Your task to perform on an android device: Clear the shopping cart on costco.com. Add "amazon basics triple a" to the cart on costco.com, then select checkout. Image 0: 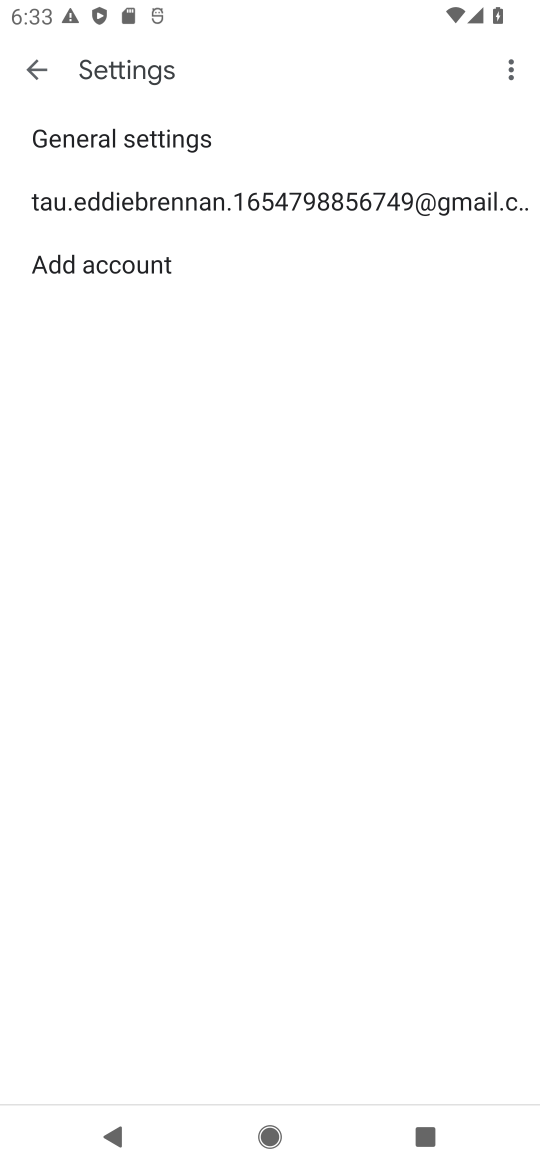
Step 0: press home button
Your task to perform on an android device: Clear the shopping cart on costco.com. Add "amazon basics triple a" to the cart on costco.com, then select checkout. Image 1: 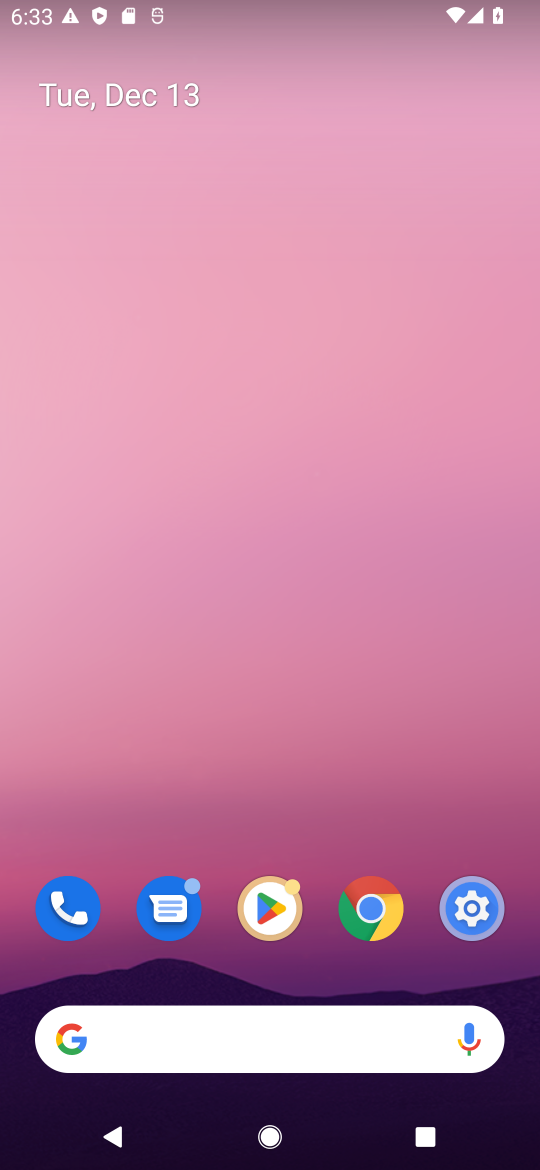
Step 1: click (104, 1032)
Your task to perform on an android device: Clear the shopping cart on costco.com. Add "amazon basics triple a" to the cart on costco.com, then select checkout. Image 2: 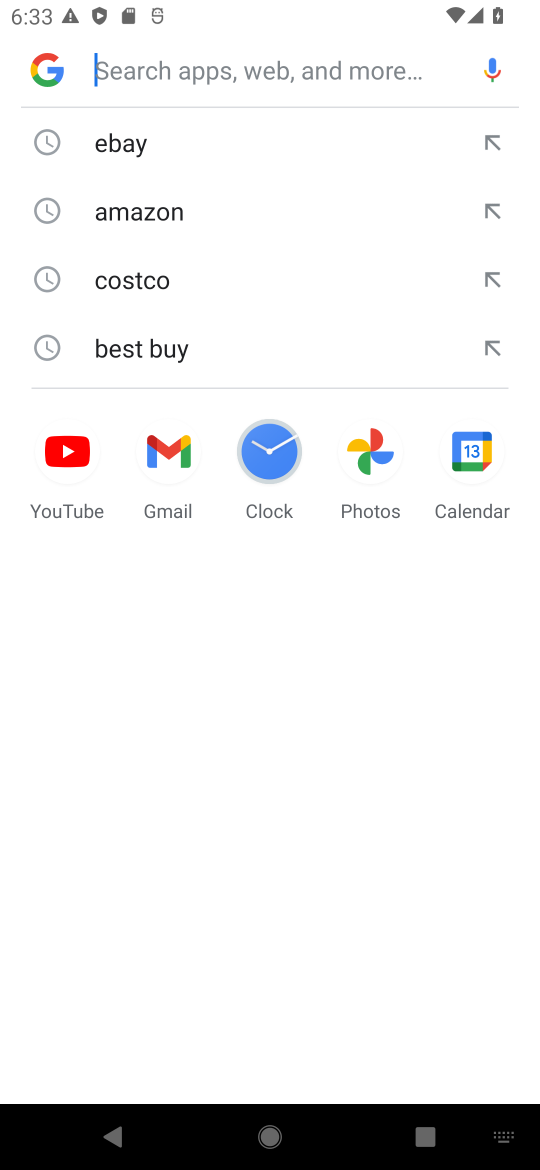
Step 2: type "costco.com"
Your task to perform on an android device: Clear the shopping cart on costco.com. Add "amazon basics triple a" to the cart on costco.com, then select checkout. Image 3: 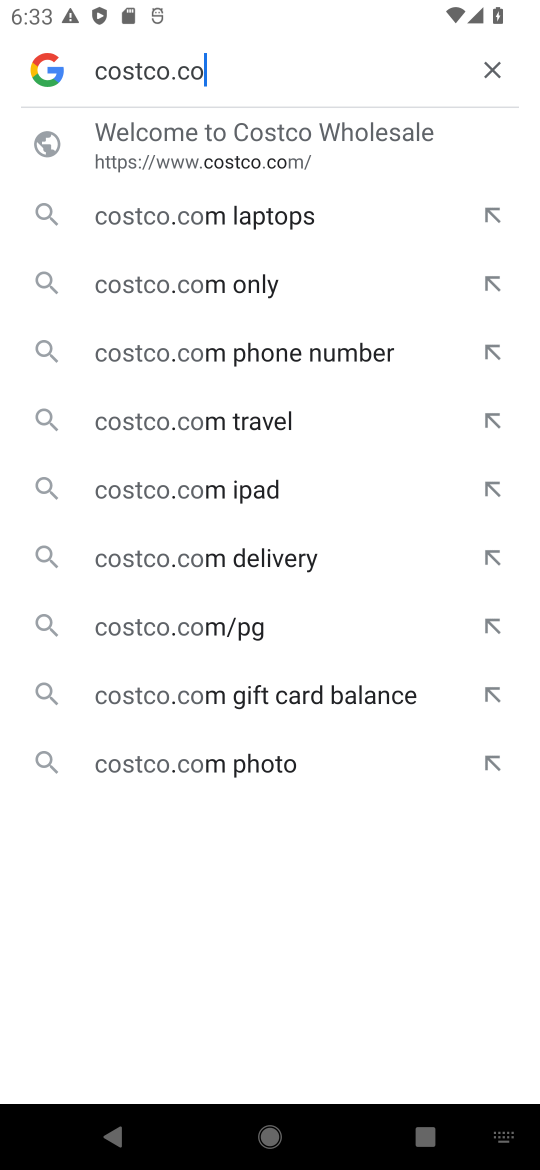
Step 3: press enter
Your task to perform on an android device: Clear the shopping cart on costco.com. Add "amazon basics triple a" to the cart on costco.com, then select checkout. Image 4: 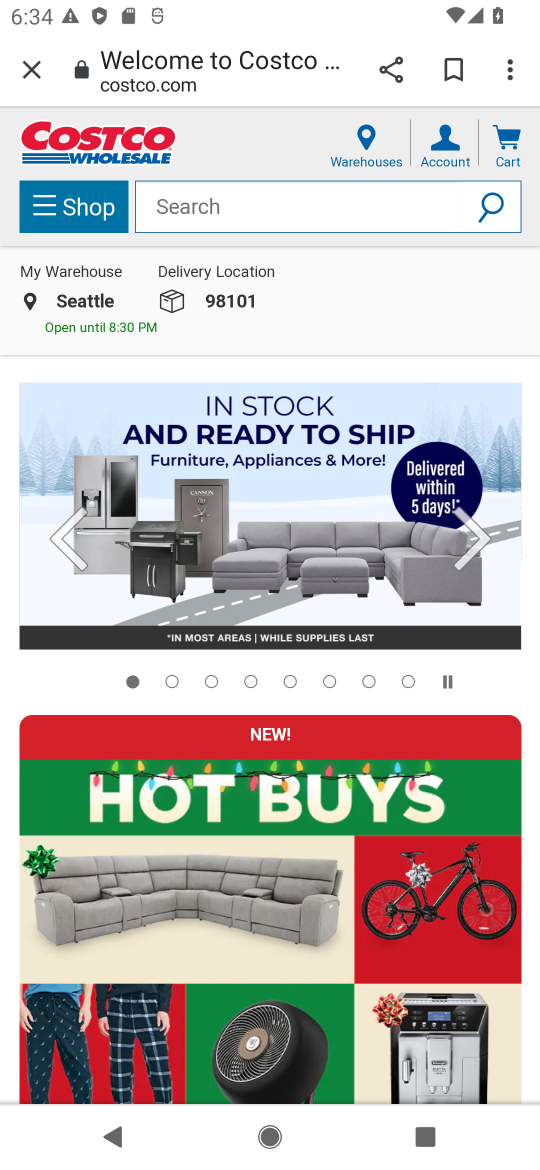
Step 4: click (243, 198)
Your task to perform on an android device: Clear the shopping cart on costco.com. Add "amazon basics triple a" to the cart on costco.com, then select checkout. Image 5: 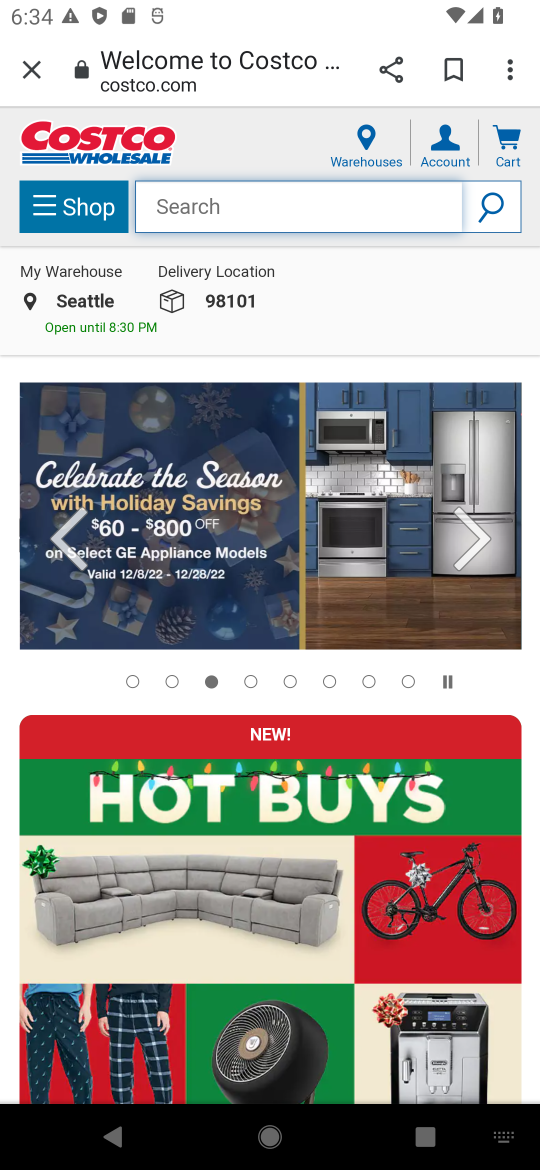
Step 5: press enter
Your task to perform on an android device: Clear the shopping cart on costco.com. Add "amazon basics triple a" to the cart on costco.com, then select checkout. Image 6: 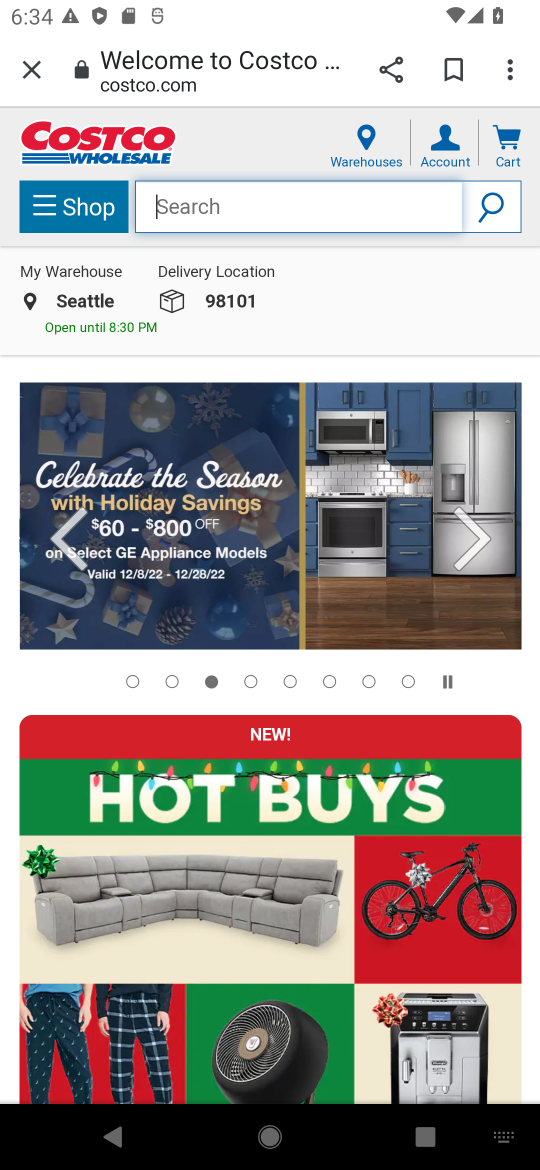
Step 6: type "amazon basics triple  a"
Your task to perform on an android device: Clear the shopping cart on costco.com. Add "amazon basics triple a" to the cart on costco.com, then select checkout. Image 7: 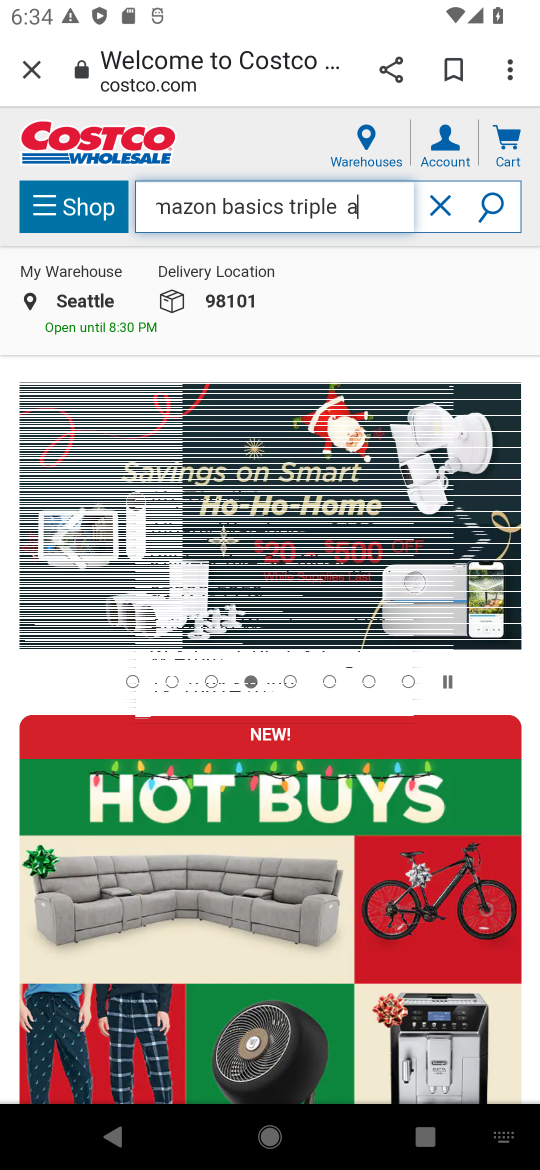
Step 7: press enter
Your task to perform on an android device: Clear the shopping cart on costco.com. Add "amazon basics triple a" to the cart on costco.com, then select checkout. Image 8: 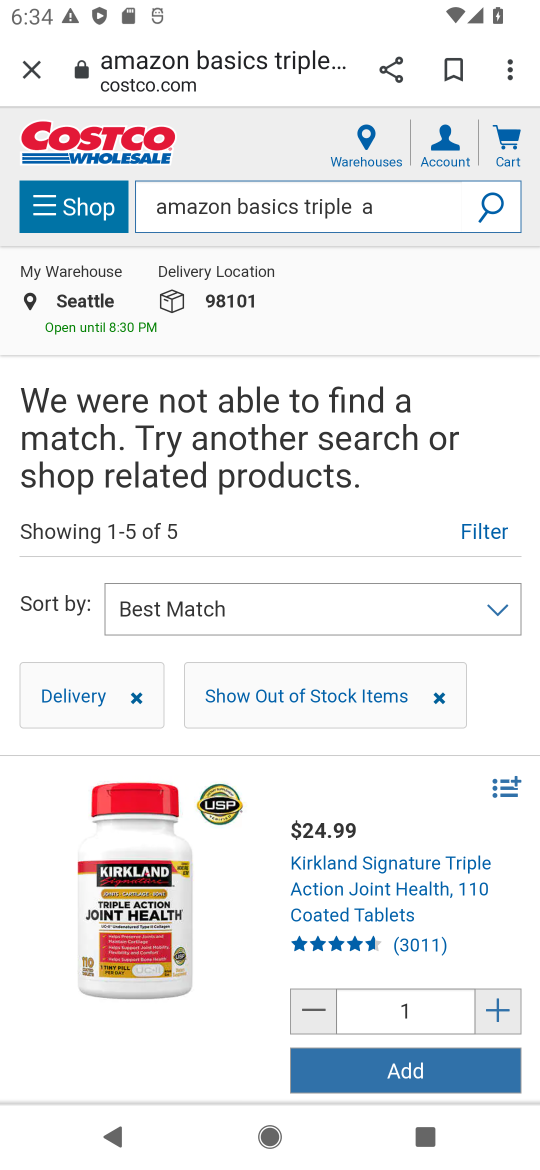
Step 8: task complete